Your task to perform on an android device: uninstall "Google Maps" Image 0: 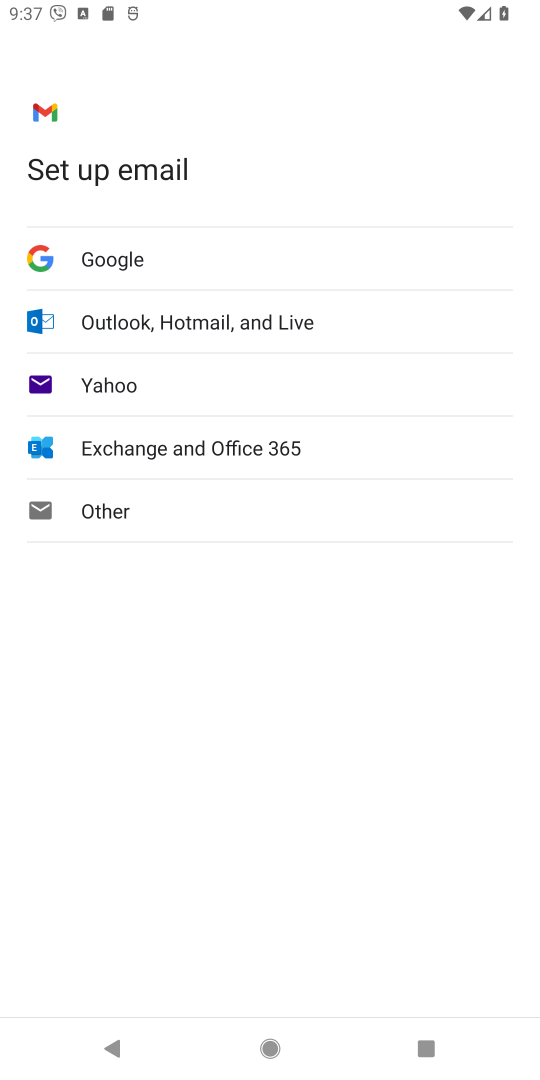
Step 0: press home button
Your task to perform on an android device: uninstall "Google Maps" Image 1: 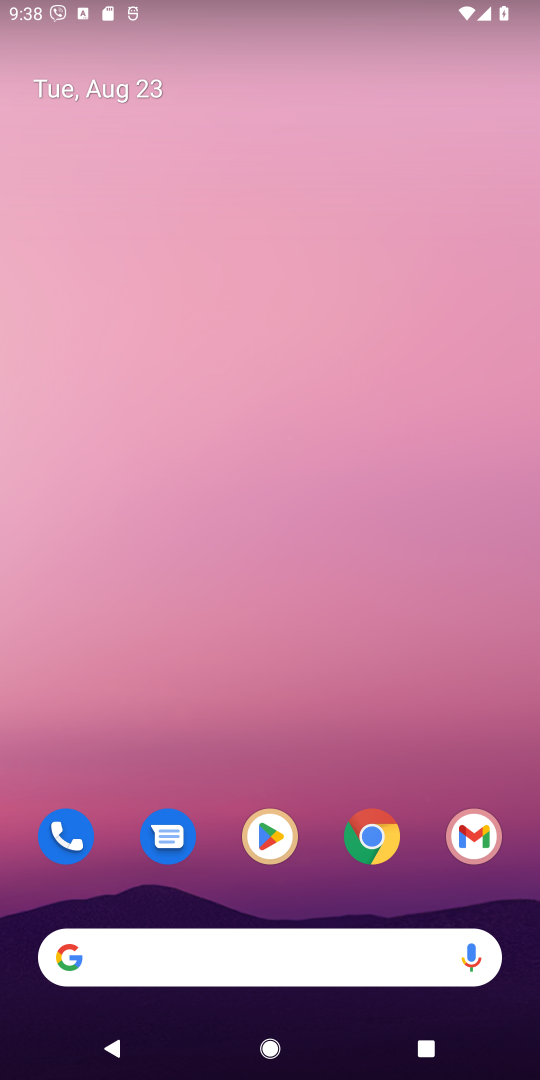
Step 1: click (269, 836)
Your task to perform on an android device: uninstall "Google Maps" Image 2: 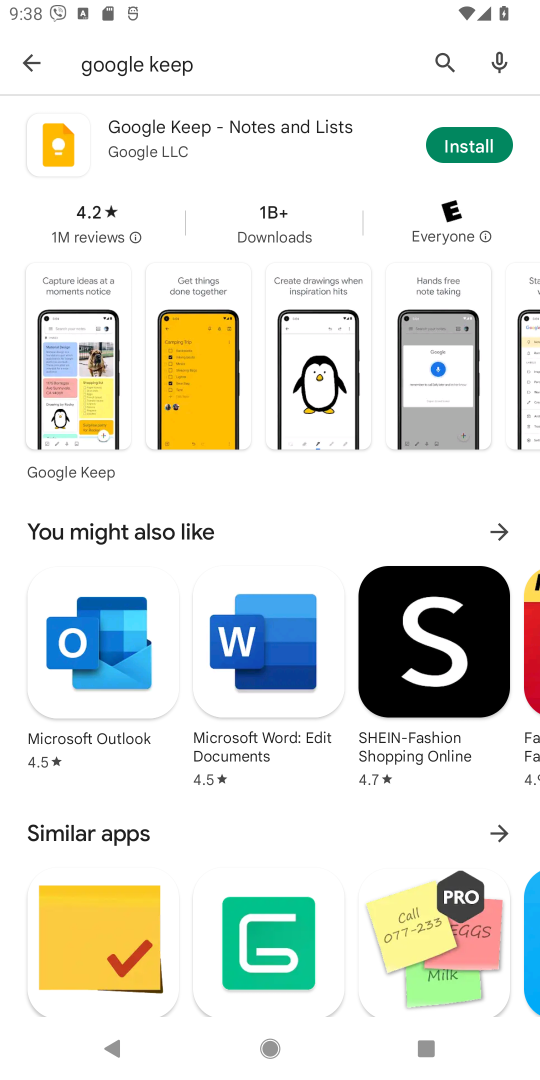
Step 2: task complete